Your task to perform on an android device: Open Google Maps and go to "Timeline" Image 0: 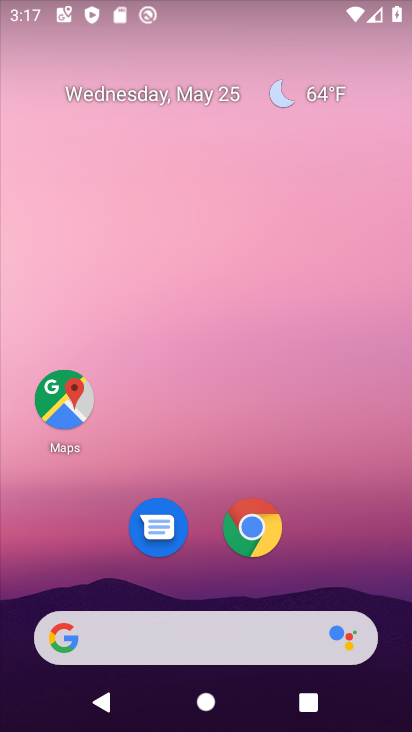
Step 0: click (63, 406)
Your task to perform on an android device: Open Google Maps and go to "Timeline" Image 1: 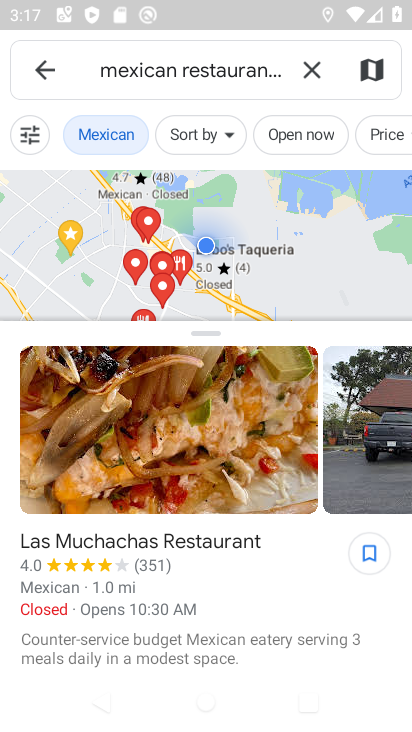
Step 1: click (41, 67)
Your task to perform on an android device: Open Google Maps and go to "Timeline" Image 2: 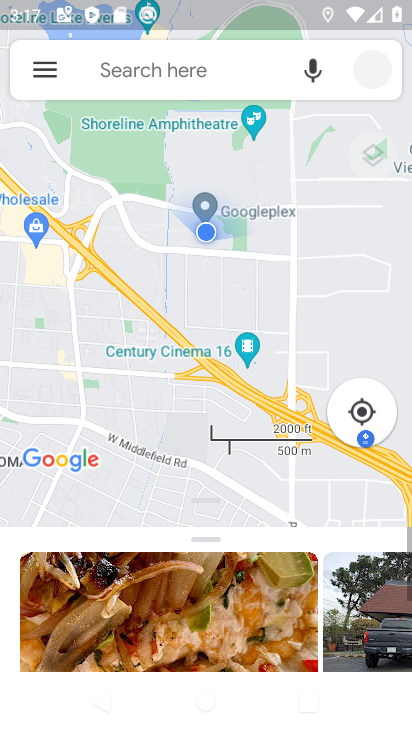
Step 2: click (41, 67)
Your task to perform on an android device: Open Google Maps and go to "Timeline" Image 3: 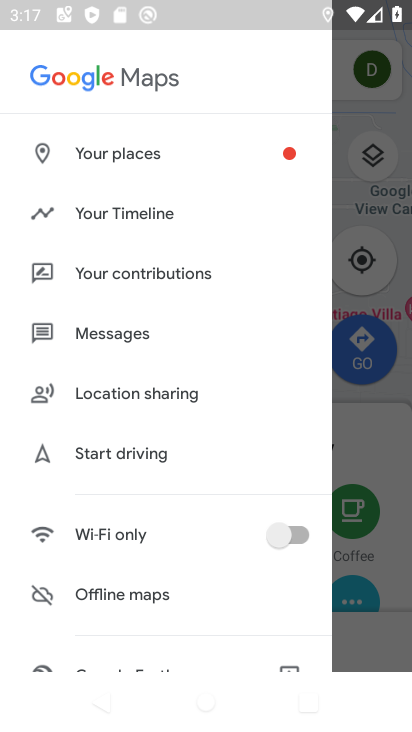
Step 3: click (111, 223)
Your task to perform on an android device: Open Google Maps and go to "Timeline" Image 4: 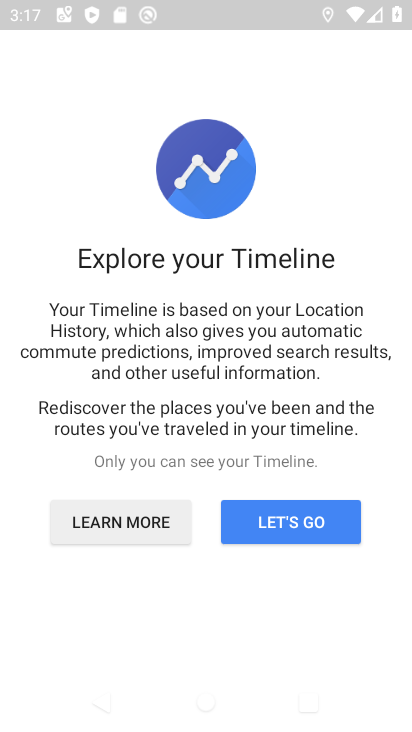
Step 4: click (287, 521)
Your task to perform on an android device: Open Google Maps and go to "Timeline" Image 5: 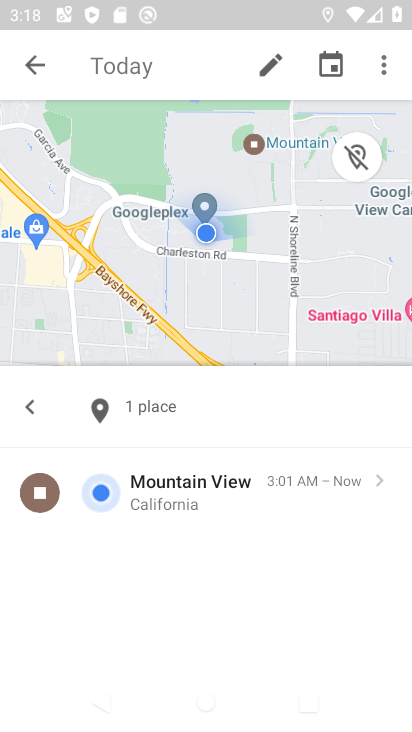
Step 5: task complete